Your task to perform on an android device: clear history in the chrome app Image 0: 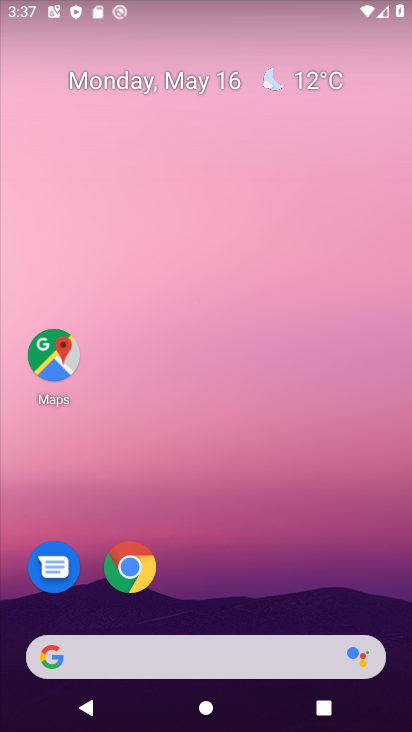
Step 0: drag from (227, 576) to (211, 42)
Your task to perform on an android device: clear history in the chrome app Image 1: 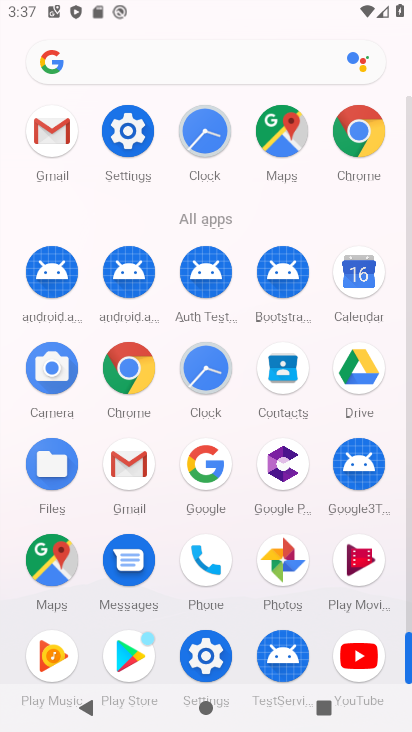
Step 1: drag from (10, 559) to (21, 196)
Your task to perform on an android device: clear history in the chrome app Image 2: 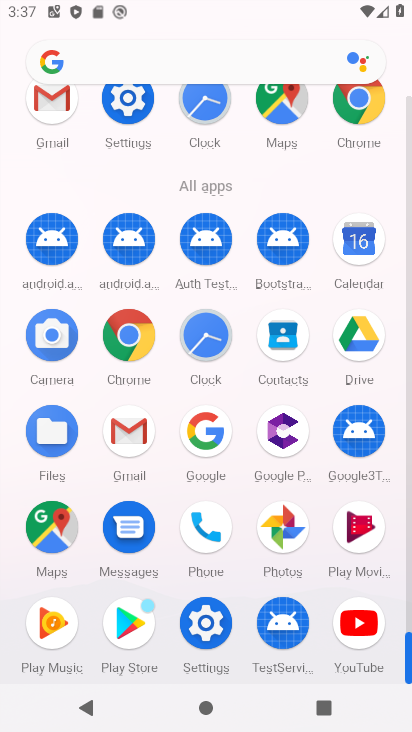
Step 2: click (130, 327)
Your task to perform on an android device: clear history in the chrome app Image 3: 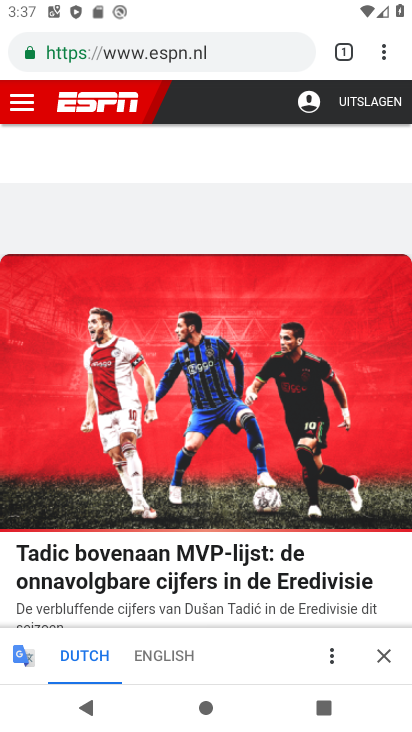
Step 3: drag from (383, 51) to (219, 612)
Your task to perform on an android device: clear history in the chrome app Image 4: 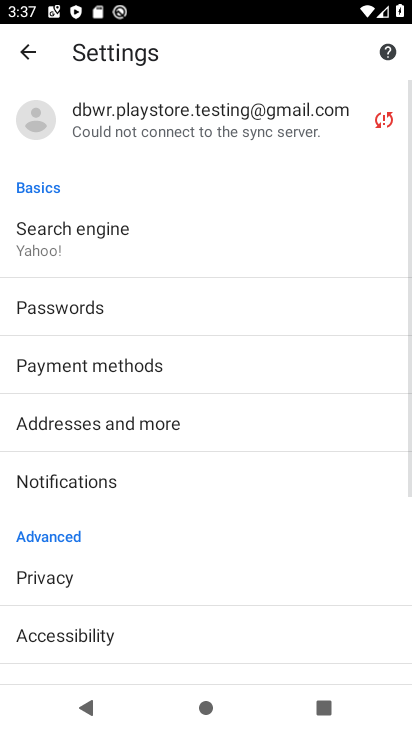
Step 4: drag from (228, 499) to (221, 144)
Your task to perform on an android device: clear history in the chrome app Image 5: 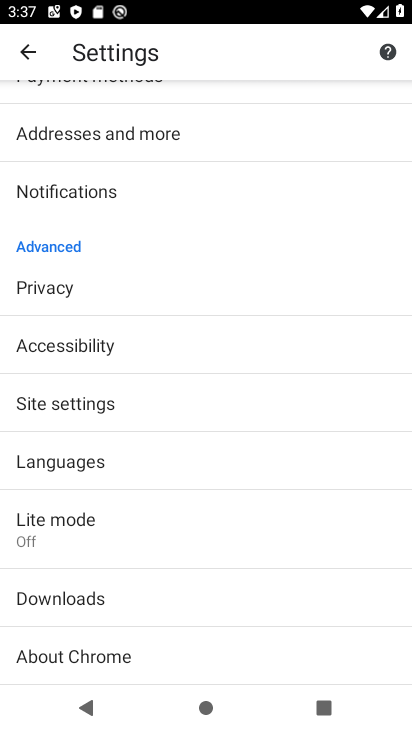
Step 5: drag from (220, 277) to (239, 647)
Your task to perform on an android device: clear history in the chrome app Image 6: 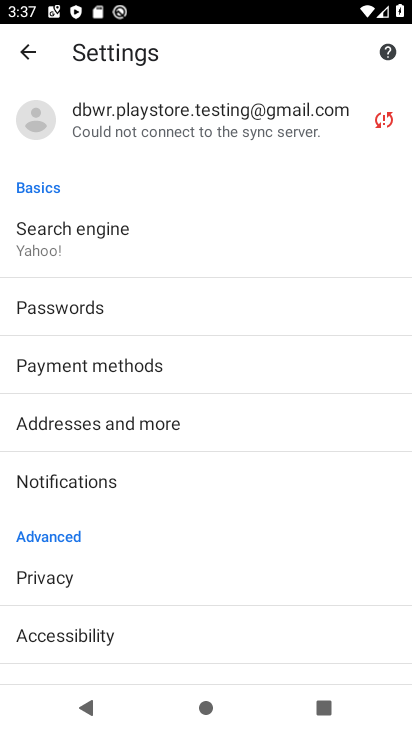
Step 6: drag from (234, 578) to (216, 107)
Your task to perform on an android device: clear history in the chrome app Image 7: 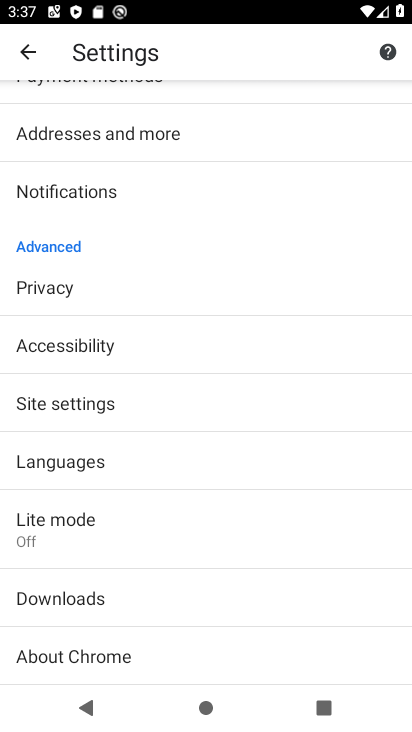
Step 7: drag from (224, 503) to (236, 194)
Your task to perform on an android device: clear history in the chrome app Image 8: 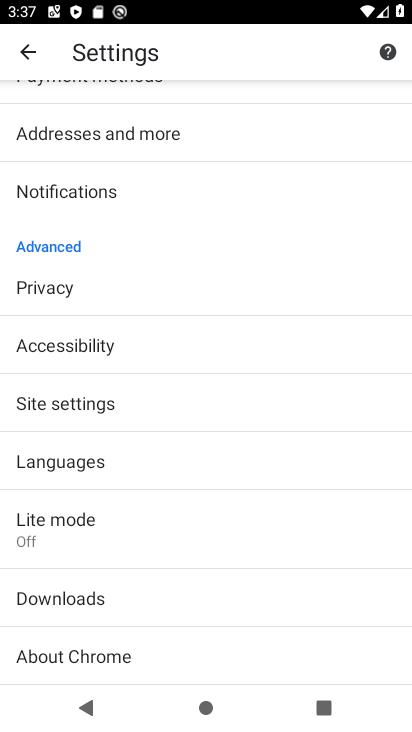
Step 8: drag from (246, 241) to (229, 502)
Your task to perform on an android device: clear history in the chrome app Image 9: 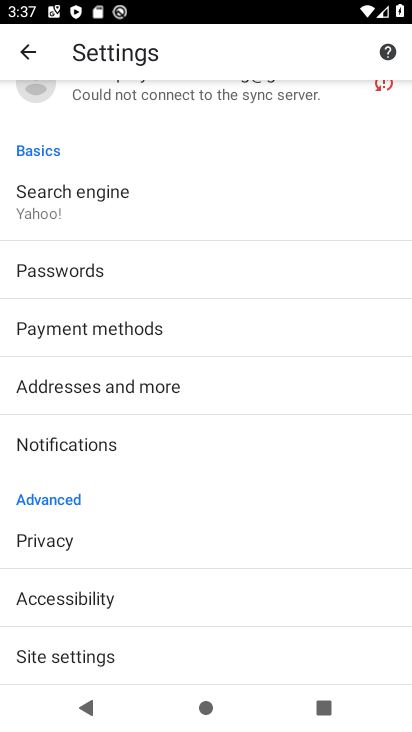
Step 9: click (28, 54)
Your task to perform on an android device: clear history in the chrome app Image 10: 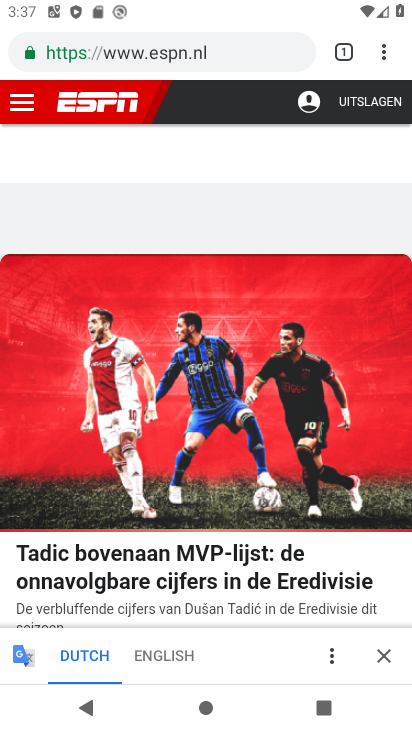
Step 10: drag from (385, 53) to (222, 294)
Your task to perform on an android device: clear history in the chrome app Image 11: 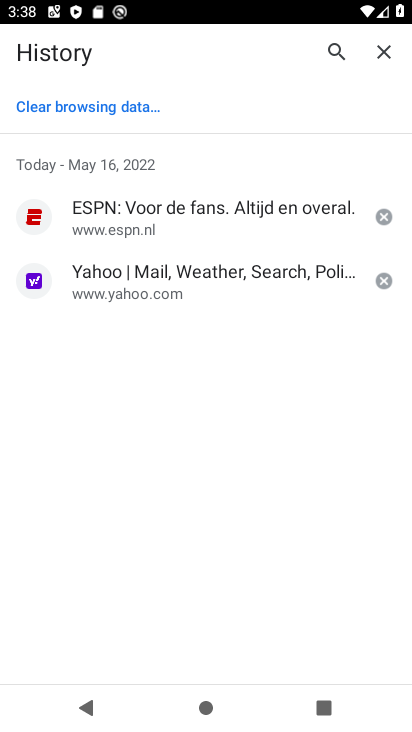
Step 11: click (107, 112)
Your task to perform on an android device: clear history in the chrome app Image 12: 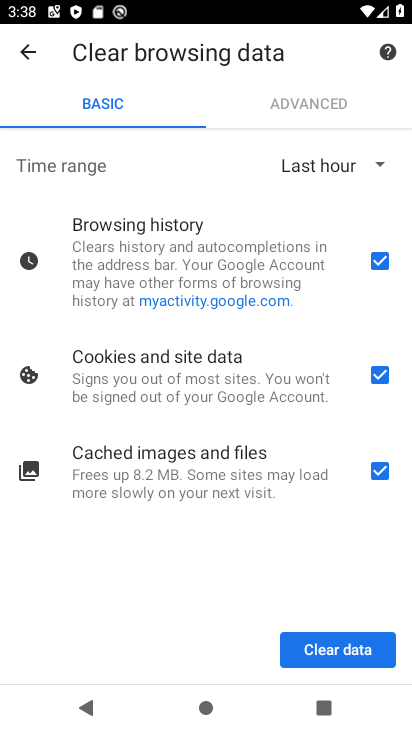
Step 12: click (339, 651)
Your task to perform on an android device: clear history in the chrome app Image 13: 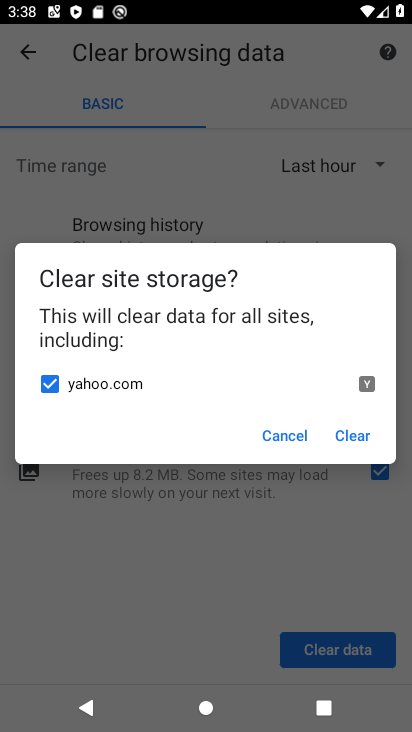
Step 13: click (350, 435)
Your task to perform on an android device: clear history in the chrome app Image 14: 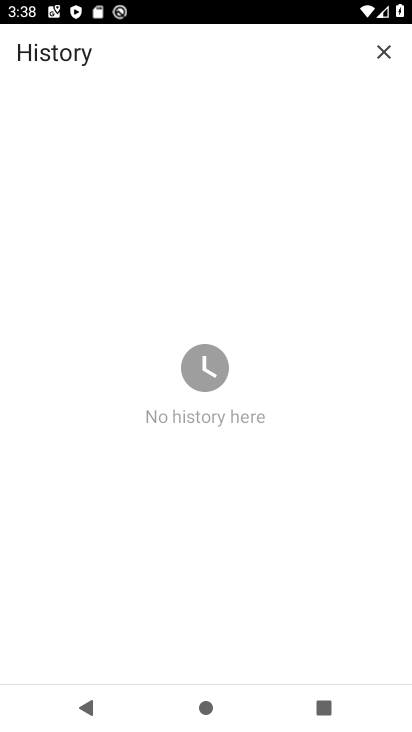
Step 14: task complete